Your task to perform on an android device: toggle notification dots Image 0: 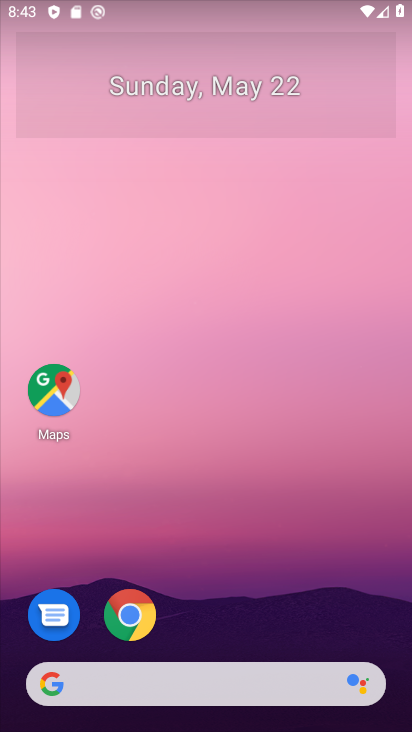
Step 0: drag from (235, 522) to (228, 277)
Your task to perform on an android device: toggle notification dots Image 1: 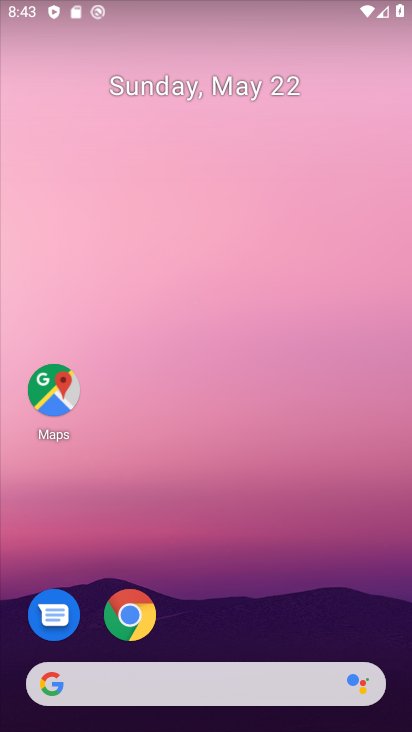
Step 1: drag from (255, 568) to (341, 99)
Your task to perform on an android device: toggle notification dots Image 2: 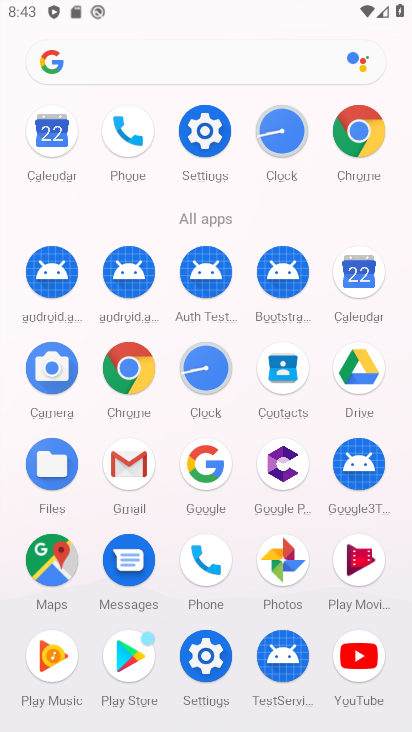
Step 2: click (205, 124)
Your task to perform on an android device: toggle notification dots Image 3: 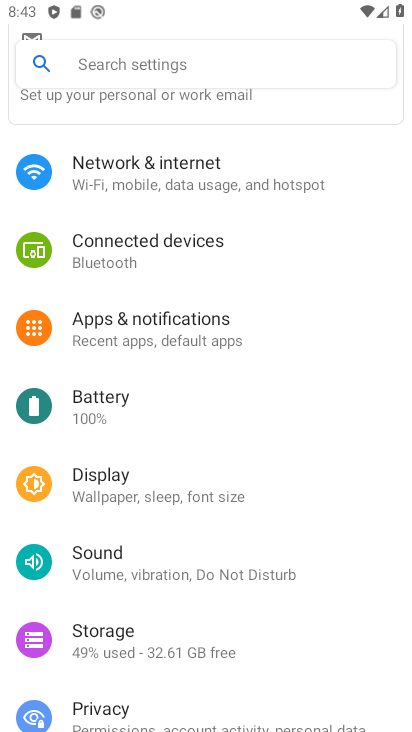
Step 3: click (220, 55)
Your task to perform on an android device: toggle notification dots Image 4: 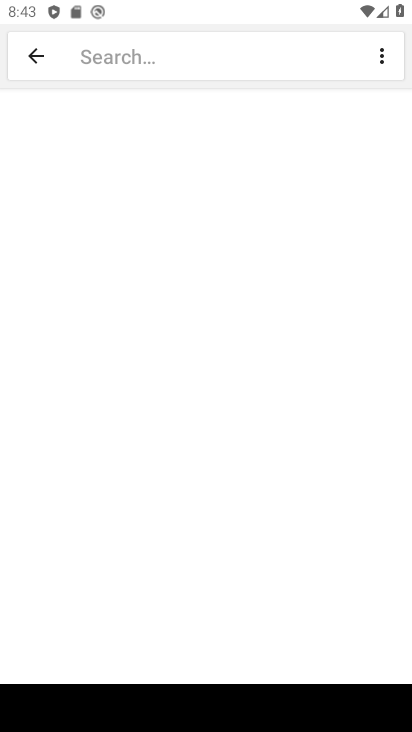
Step 4: type "notification dots"
Your task to perform on an android device: toggle notification dots Image 5: 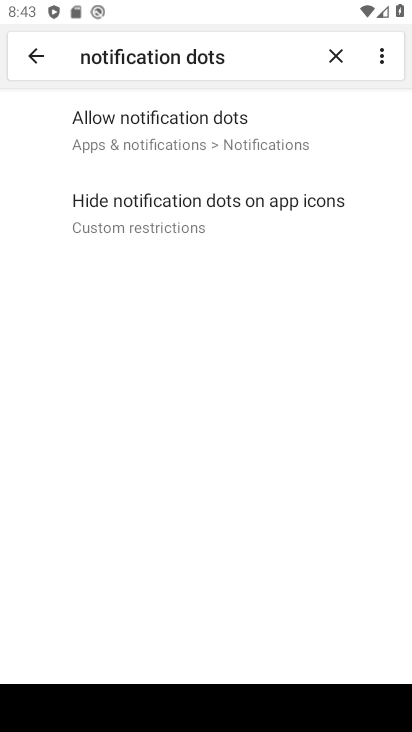
Step 5: click (120, 116)
Your task to perform on an android device: toggle notification dots Image 6: 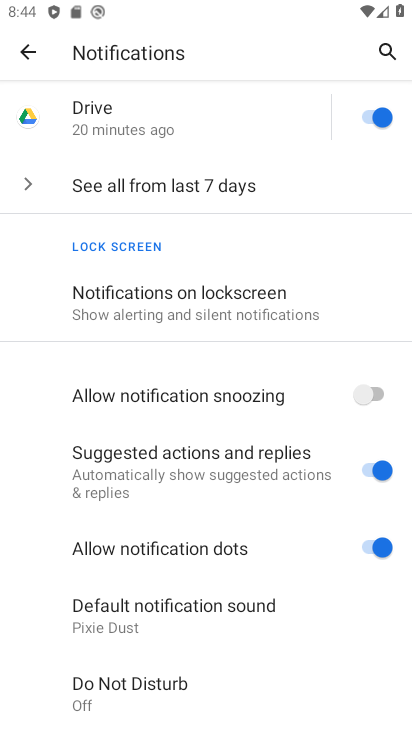
Step 6: click (380, 548)
Your task to perform on an android device: toggle notification dots Image 7: 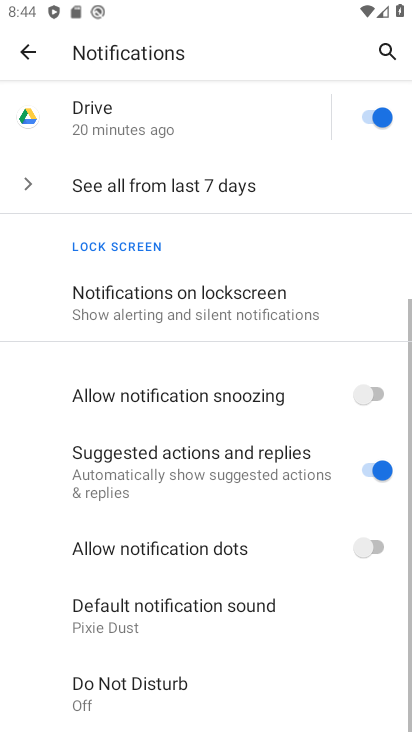
Step 7: task complete